Your task to perform on an android device: toggle location history Image 0: 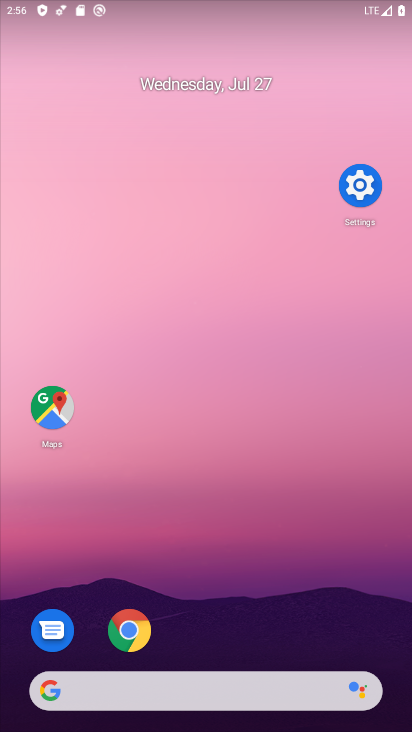
Step 0: press home button
Your task to perform on an android device: toggle location history Image 1: 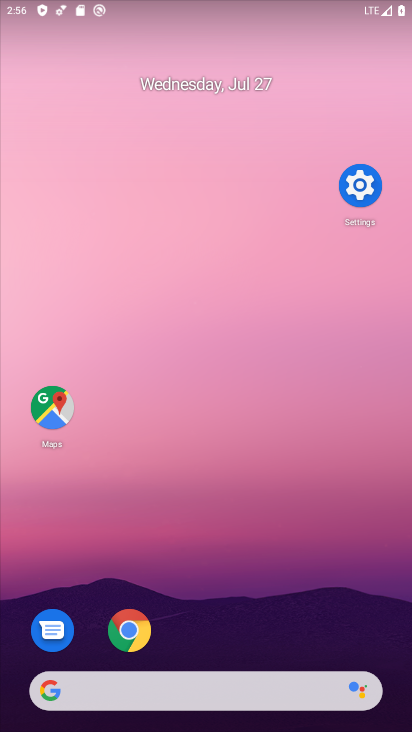
Step 1: drag from (229, 633) to (309, 203)
Your task to perform on an android device: toggle location history Image 2: 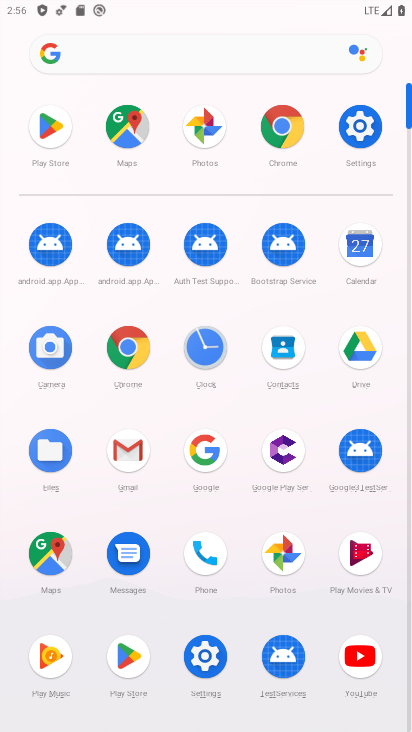
Step 2: click (362, 136)
Your task to perform on an android device: toggle location history Image 3: 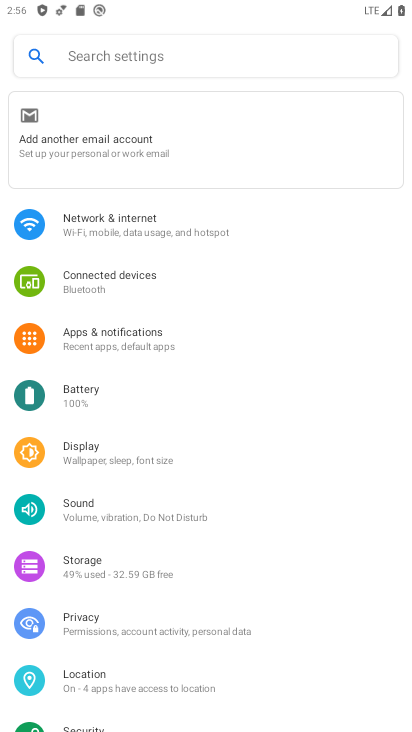
Step 3: click (69, 691)
Your task to perform on an android device: toggle location history Image 4: 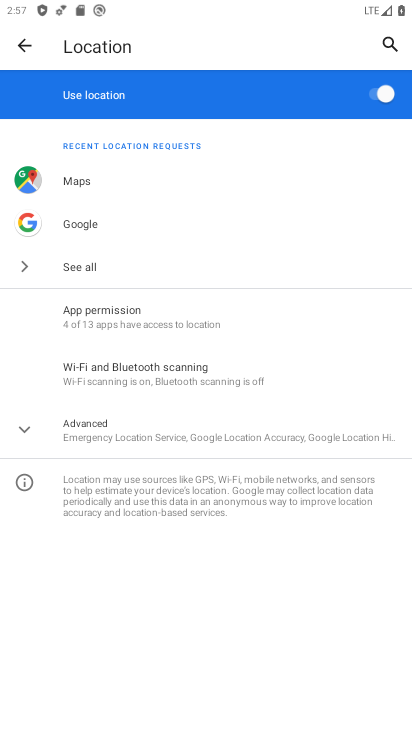
Step 4: click (87, 430)
Your task to perform on an android device: toggle location history Image 5: 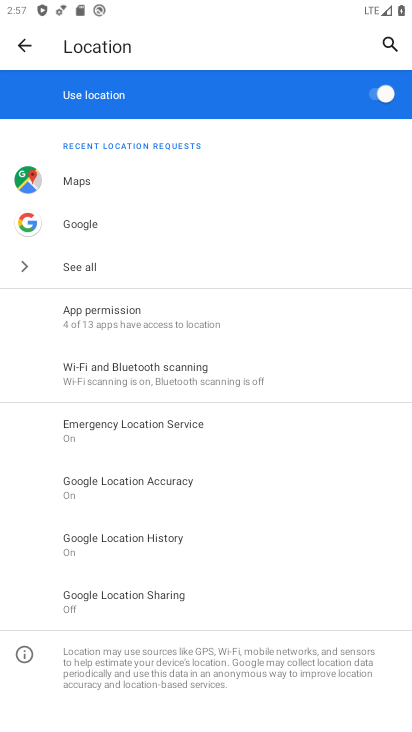
Step 5: click (118, 546)
Your task to perform on an android device: toggle location history Image 6: 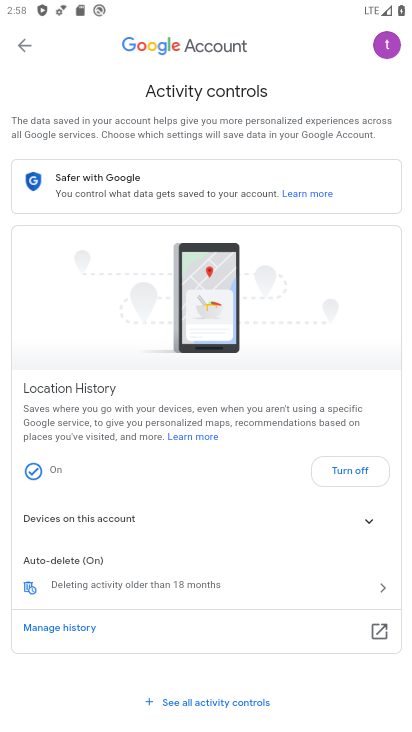
Step 6: click (339, 470)
Your task to perform on an android device: toggle location history Image 7: 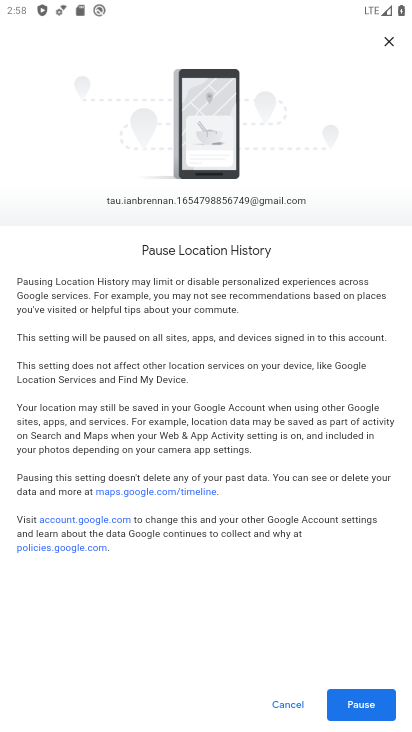
Step 7: click (360, 702)
Your task to perform on an android device: toggle location history Image 8: 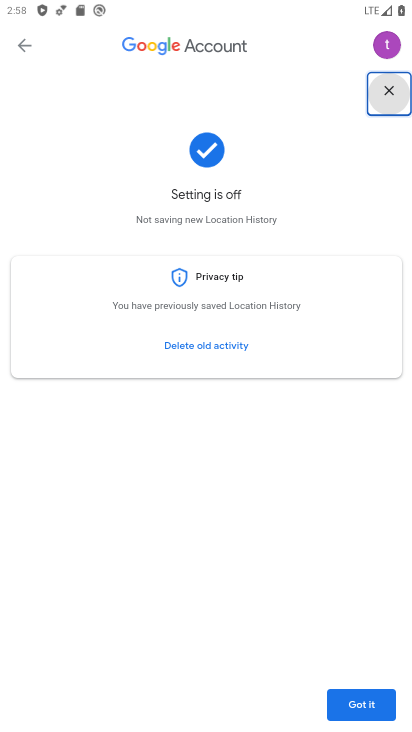
Step 8: click (358, 701)
Your task to perform on an android device: toggle location history Image 9: 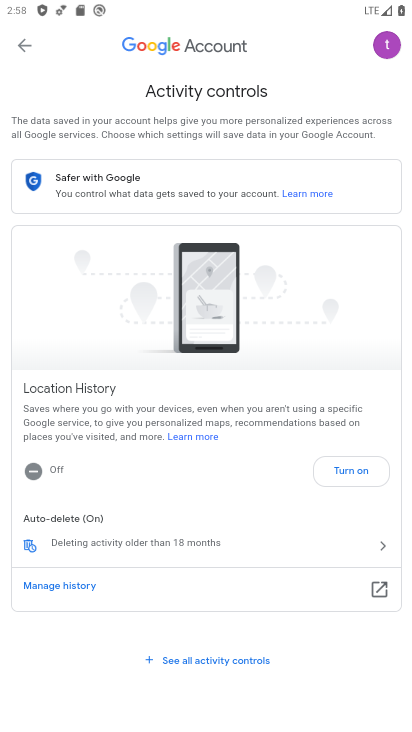
Step 9: task complete